Your task to perform on an android device: stop showing notifications on the lock screen Image 0: 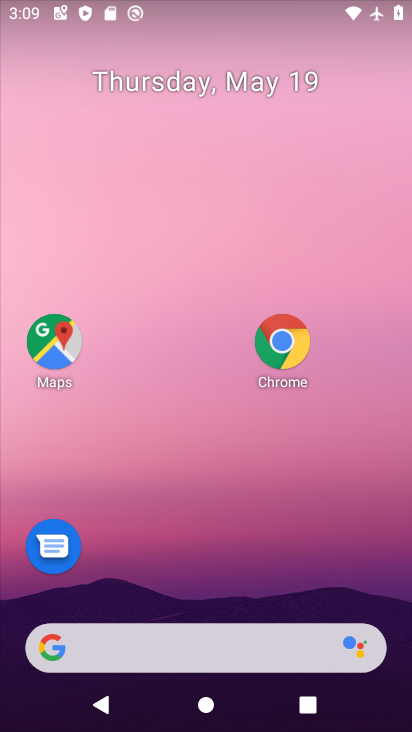
Step 0: press home button
Your task to perform on an android device: stop showing notifications on the lock screen Image 1: 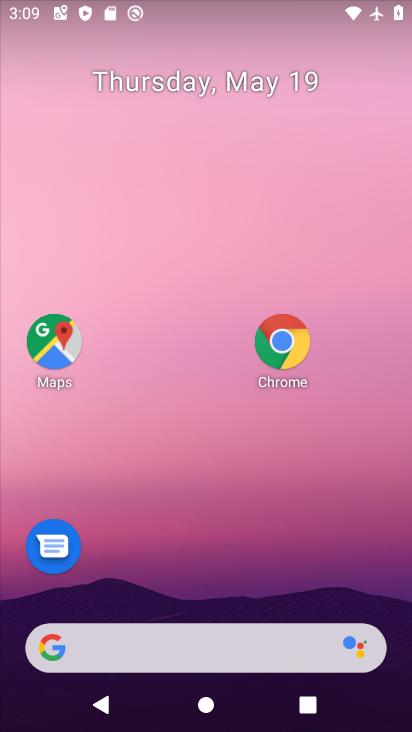
Step 1: drag from (200, 672) to (331, 173)
Your task to perform on an android device: stop showing notifications on the lock screen Image 2: 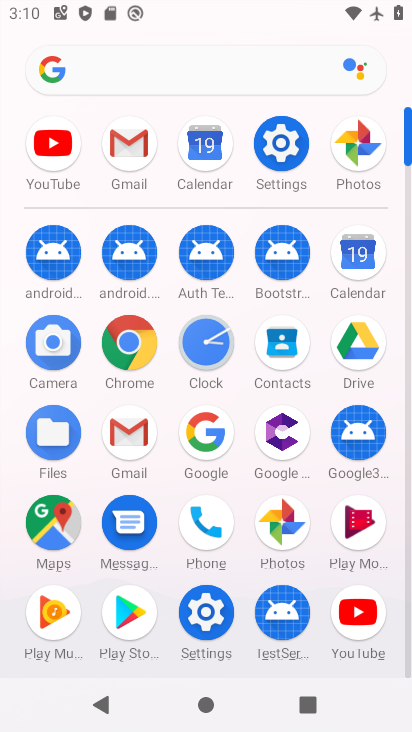
Step 2: click (290, 147)
Your task to perform on an android device: stop showing notifications on the lock screen Image 3: 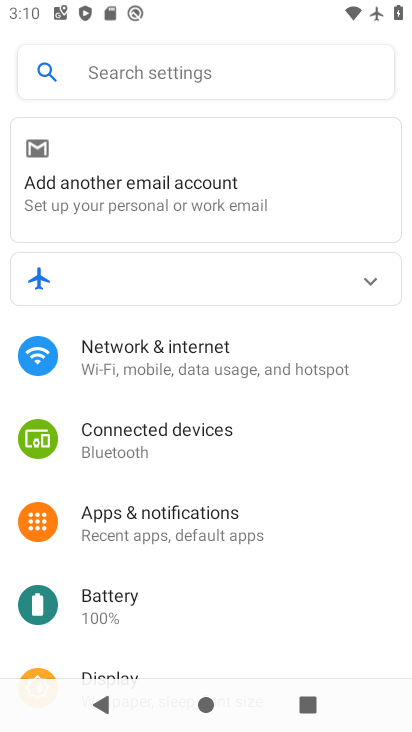
Step 3: click (205, 521)
Your task to perform on an android device: stop showing notifications on the lock screen Image 4: 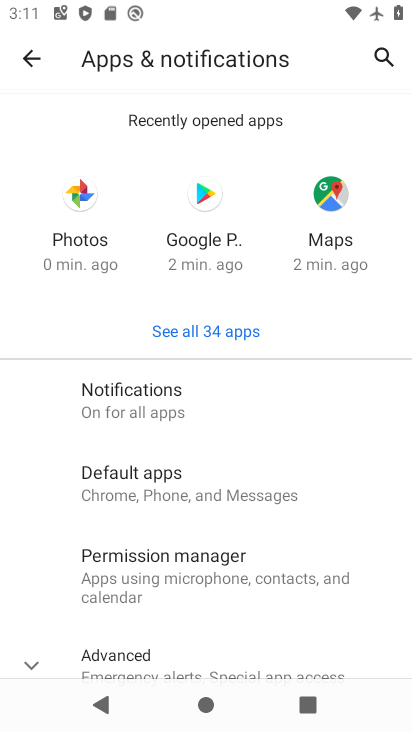
Step 4: click (173, 407)
Your task to perform on an android device: stop showing notifications on the lock screen Image 5: 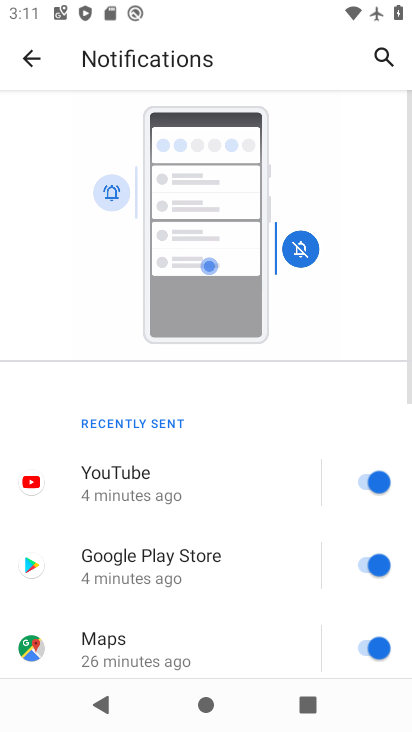
Step 5: drag from (211, 550) to (366, 194)
Your task to perform on an android device: stop showing notifications on the lock screen Image 6: 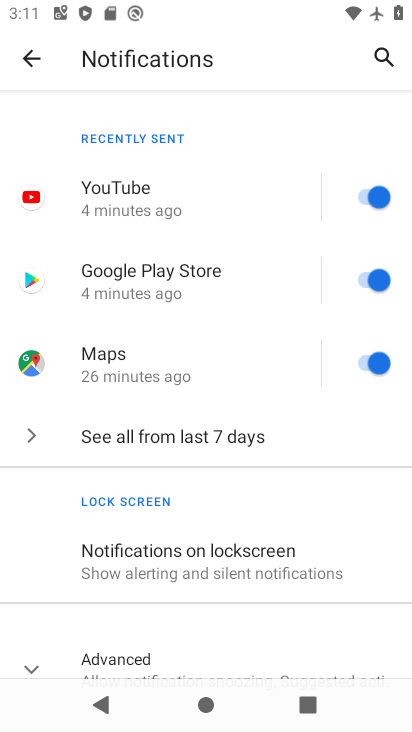
Step 6: drag from (241, 582) to (329, 307)
Your task to perform on an android device: stop showing notifications on the lock screen Image 7: 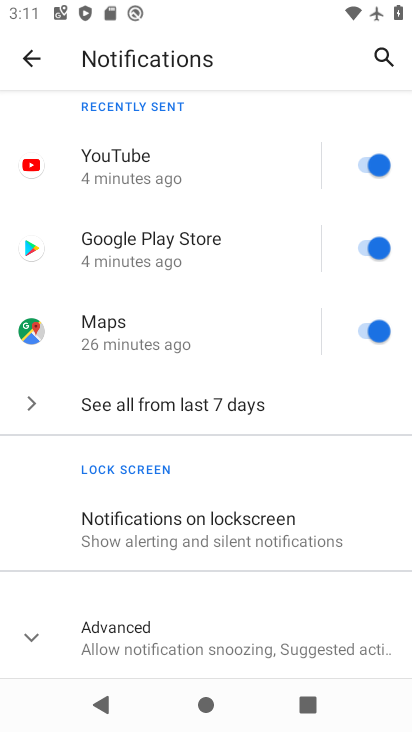
Step 7: click (204, 542)
Your task to perform on an android device: stop showing notifications on the lock screen Image 8: 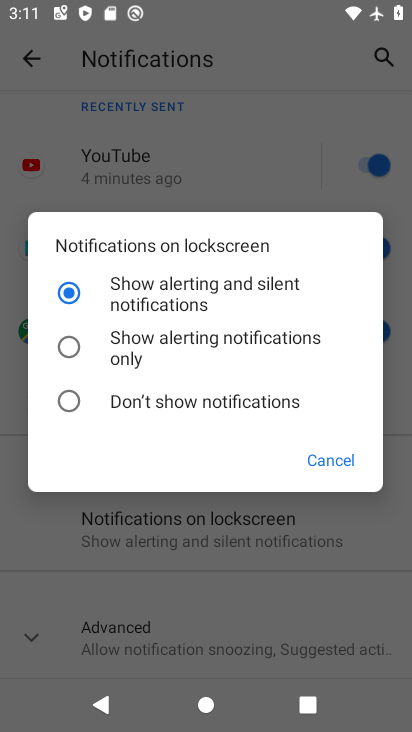
Step 8: click (74, 398)
Your task to perform on an android device: stop showing notifications on the lock screen Image 9: 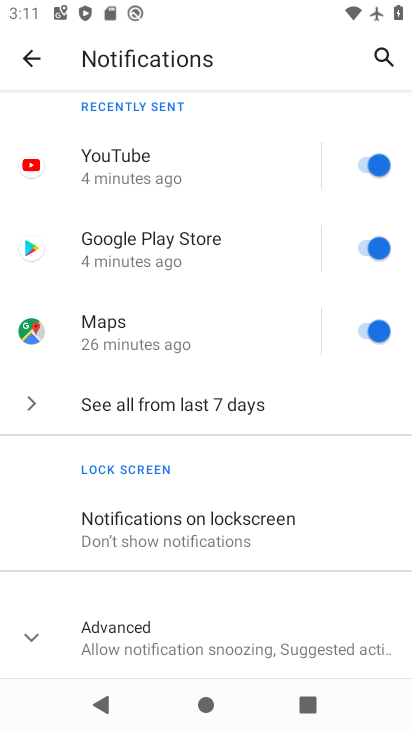
Step 9: task complete